Your task to perform on an android device: turn on location history Image 0: 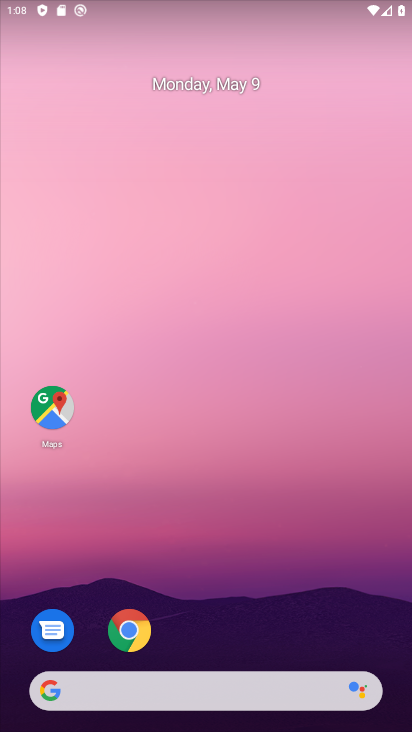
Step 0: drag from (311, 707) to (216, 256)
Your task to perform on an android device: turn on location history Image 1: 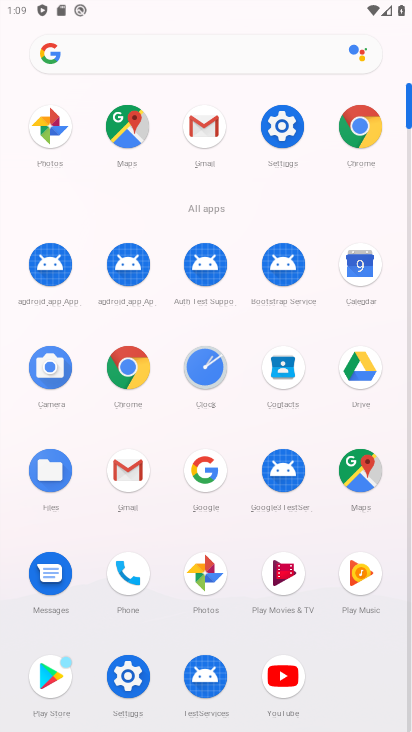
Step 1: click (295, 129)
Your task to perform on an android device: turn on location history Image 2: 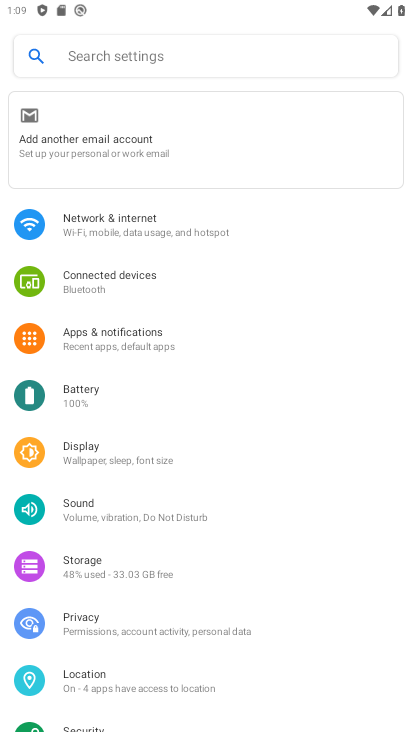
Step 2: click (162, 60)
Your task to perform on an android device: turn on location history Image 3: 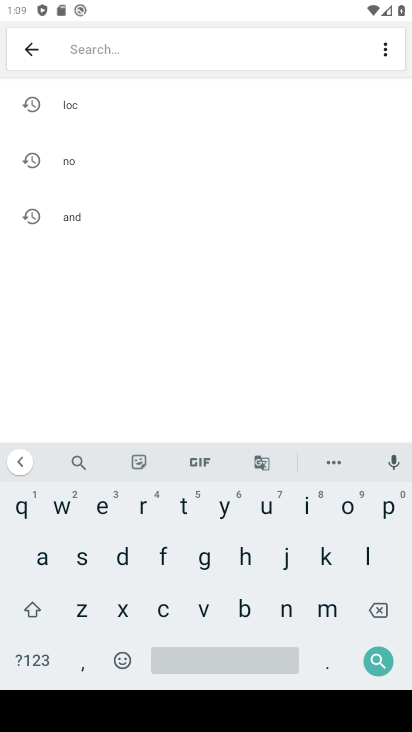
Step 3: click (91, 103)
Your task to perform on an android device: turn on location history Image 4: 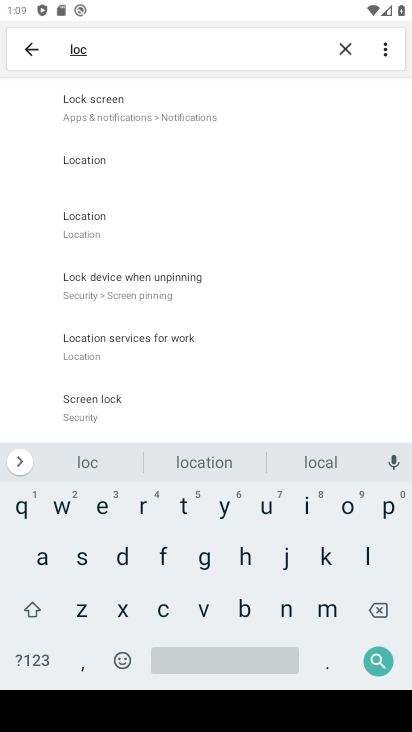
Step 4: click (113, 224)
Your task to perform on an android device: turn on location history Image 5: 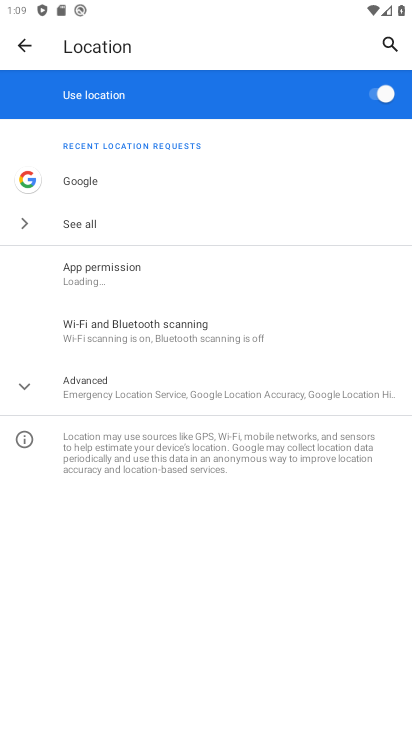
Step 5: click (131, 379)
Your task to perform on an android device: turn on location history Image 6: 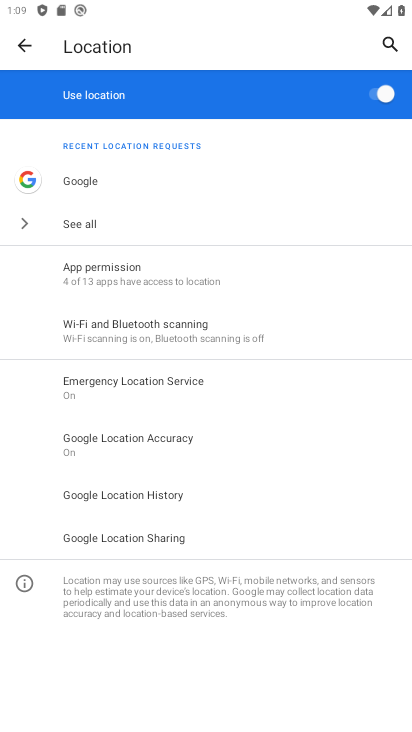
Step 6: click (181, 500)
Your task to perform on an android device: turn on location history Image 7: 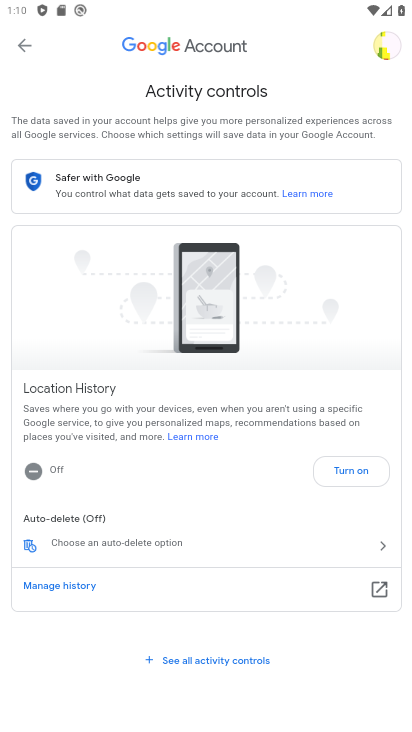
Step 7: task complete